Your task to perform on an android device: Go to privacy settings Image 0: 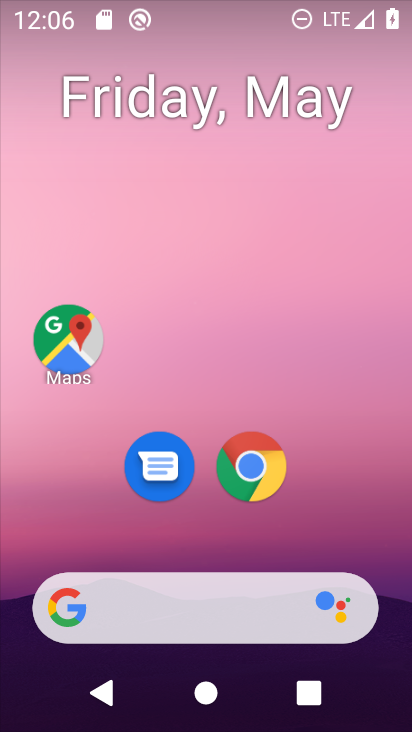
Step 0: drag from (313, 662) to (330, 130)
Your task to perform on an android device: Go to privacy settings Image 1: 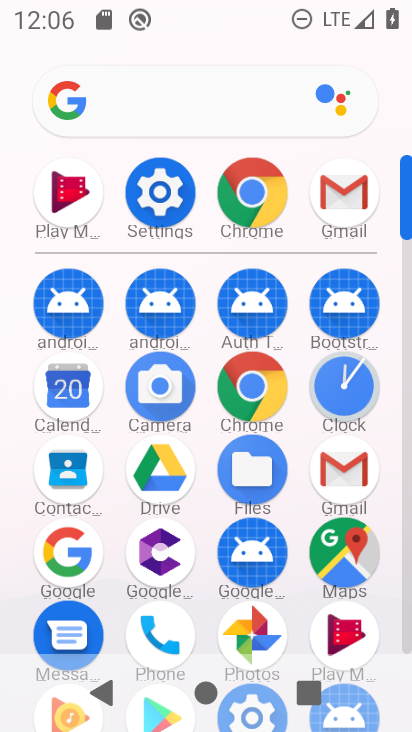
Step 1: click (155, 194)
Your task to perform on an android device: Go to privacy settings Image 2: 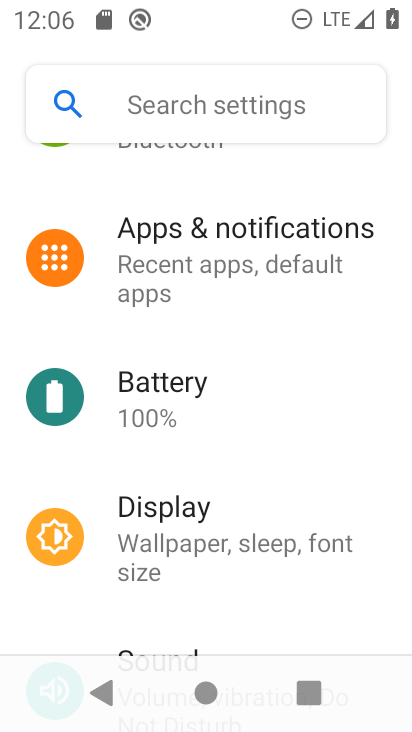
Step 2: drag from (199, 587) to (281, 82)
Your task to perform on an android device: Go to privacy settings Image 3: 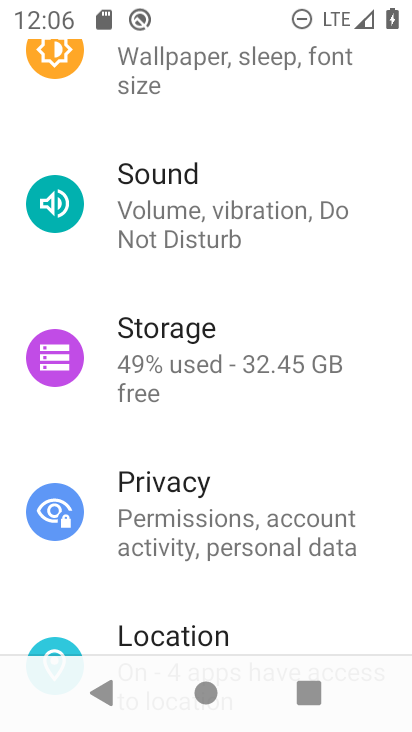
Step 3: click (227, 495)
Your task to perform on an android device: Go to privacy settings Image 4: 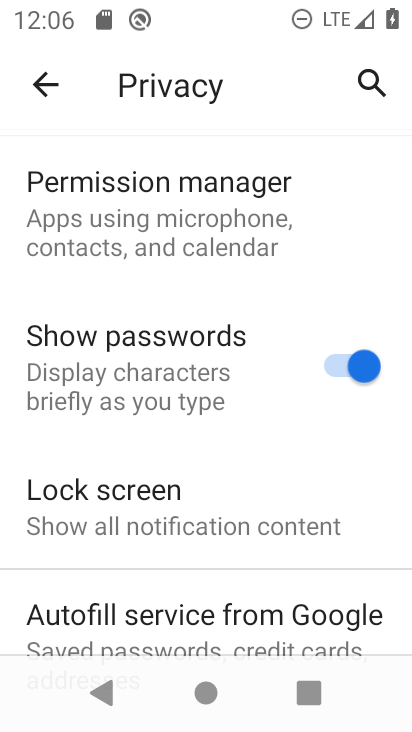
Step 4: task complete